Your task to perform on an android device: Search for sushi restaurants on Maps Image 0: 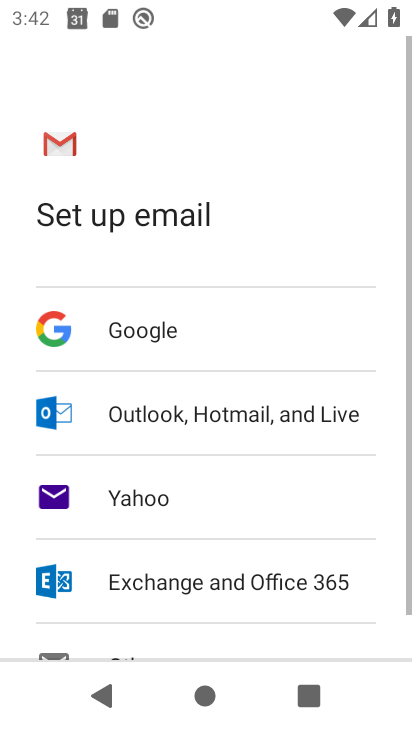
Step 0: press home button
Your task to perform on an android device: Search for sushi restaurants on Maps Image 1: 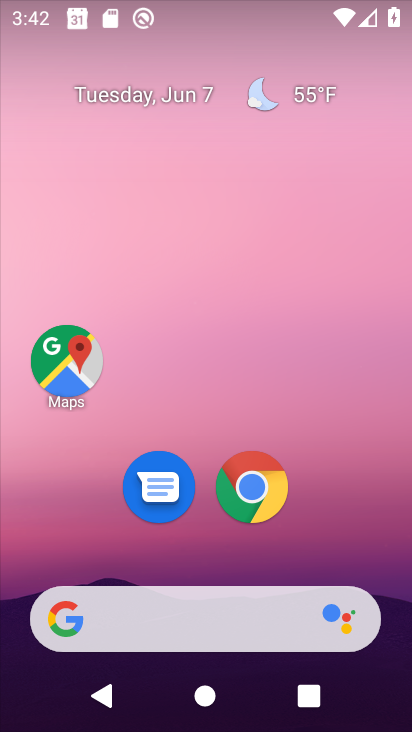
Step 1: drag from (225, 551) to (171, 116)
Your task to perform on an android device: Search for sushi restaurants on Maps Image 2: 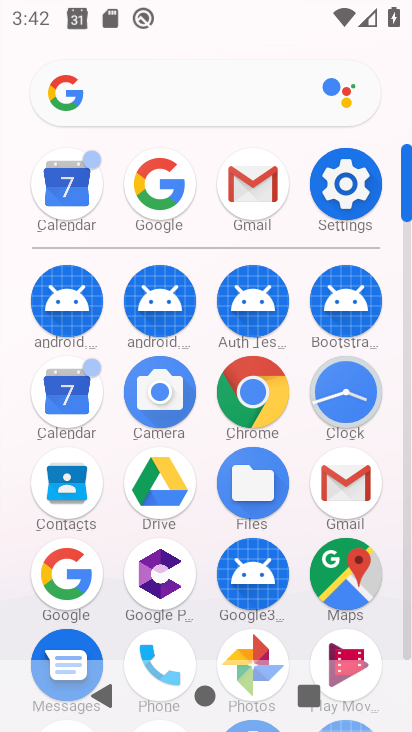
Step 2: click (348, 576)
Your task to perform on an android device: Search for sushi restaurants on Maps Image 3: 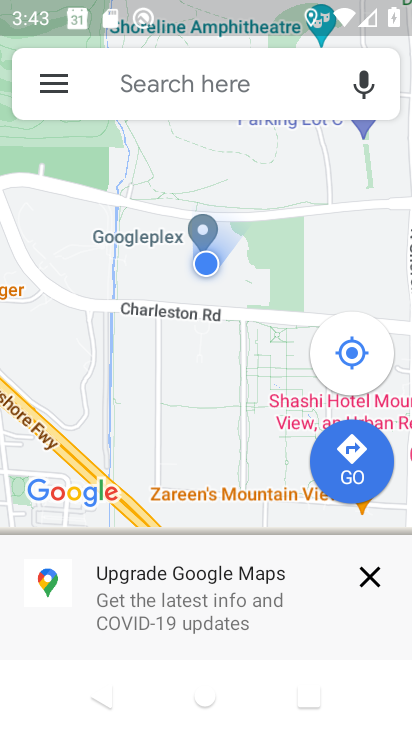
Step 3: click (209, 98)
Your task to perform on an android device: Search for sushi restaurants on Maps Image 4: 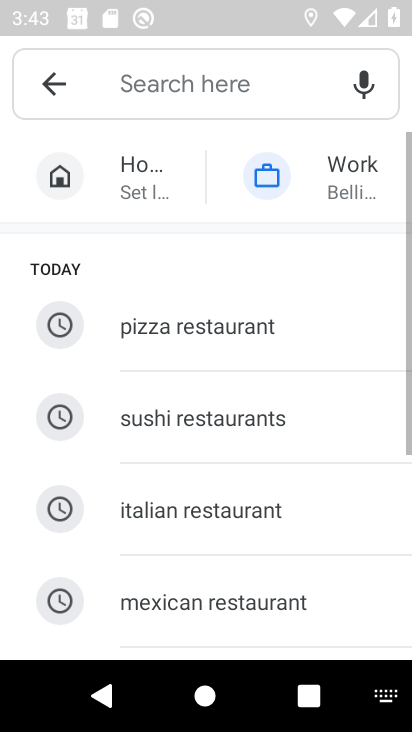
Step 4: click (177, 422)
Your task to perform on an android device: Search for sushi restaurants on Maps Image 5: 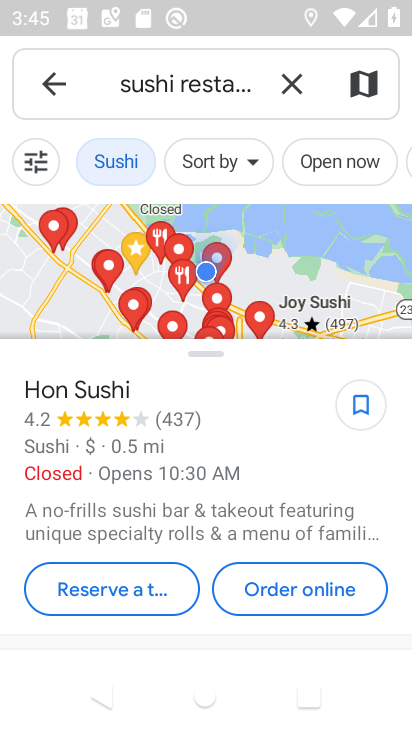
Step 5: task complete